Your task to perform on an android device: turn off data saver in the chrome app Image 0: 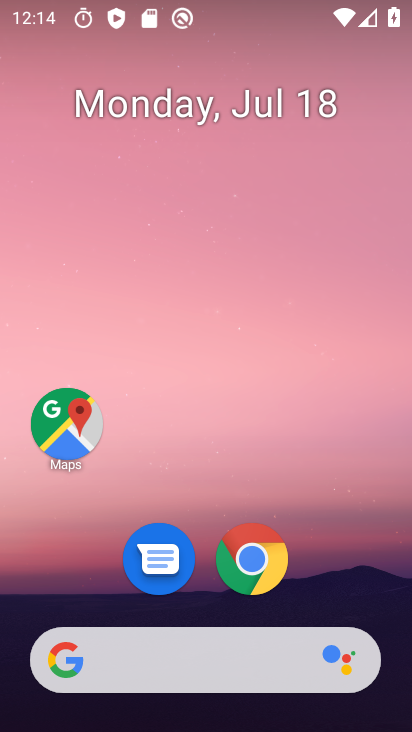
Step 0: click (247, 571)
Your task to perform on an android device: turn off data saver in the chrome app Image 1: 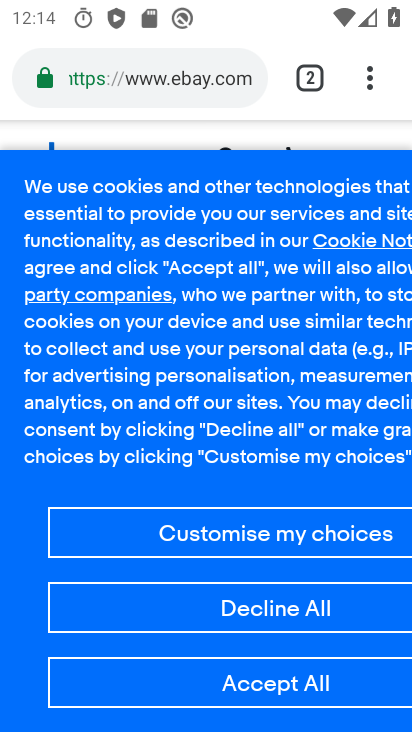
Step 1: click (366, 56)
Your task to perform on an android device: turn off data saver in the chrome app Image 2: 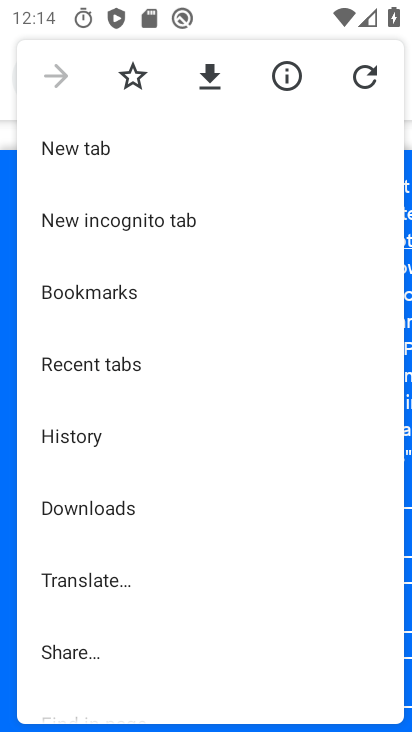
Step 2: drag from (127, 652) to (214, 143)
Your task to perform on an android device: turn off data saver in the chrome app Image 3: 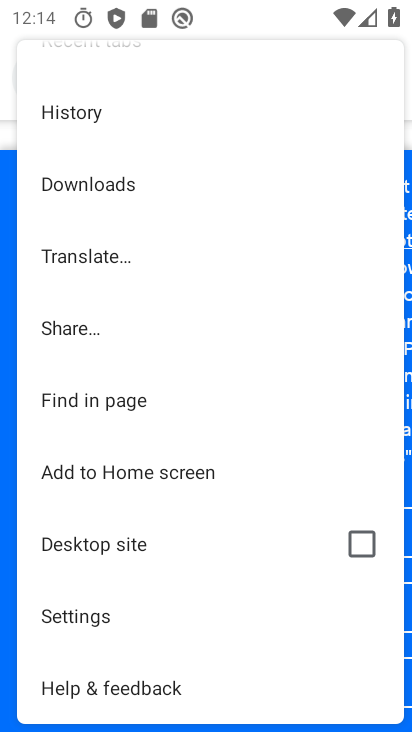
Step 3: click (97, 613)
Your task to perform on an android device: turn off data saver in the chrome app Image 4: 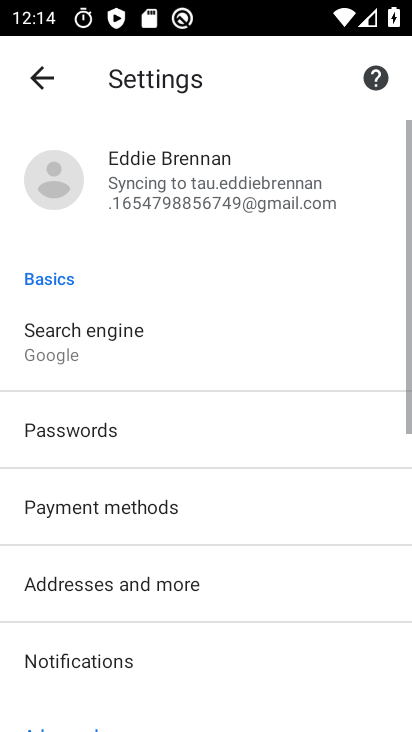
Step 4: drag from (114, 610) to (221, 64)
Your task to perform on an android device: turn off data saver in the chrome app Image 5: 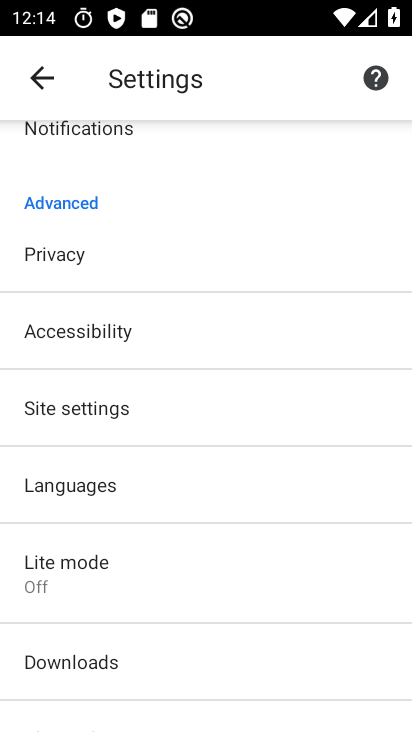
Step 5: click (65, 577)
Your task to perform on an android device: turn off data saver in the chrome app Image 6: 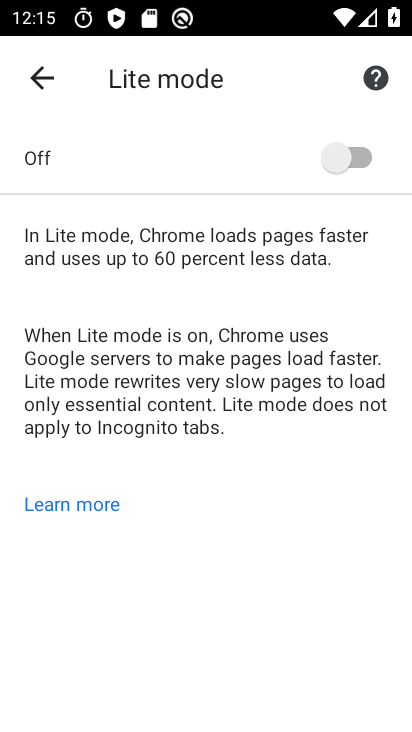
Step 6: task complete